Your task to perform on an android device: open device folders in google photos Image 0: 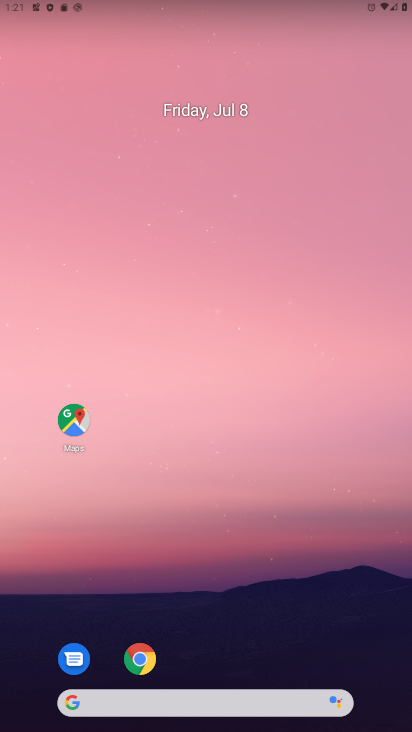
Step 0: drag from (252, 568) to (229, 95)
Your task to perform on an android device: open device folders in google photos Image 1: 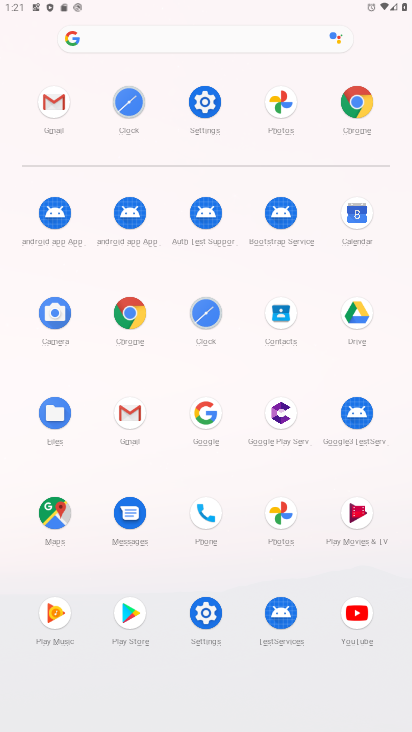
Step 1: click (284, 517)
Your task to perform on an android device: open device folders in google photos Image 2: 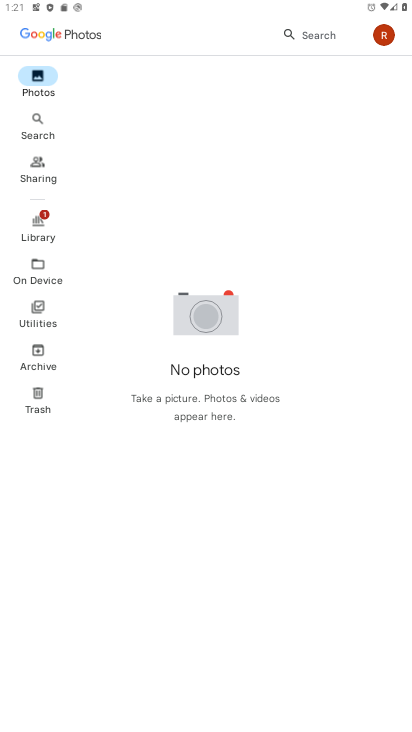
Step 2: click (33, 116)
Your task to perform on an android device: open device folders in google photos Image 3: 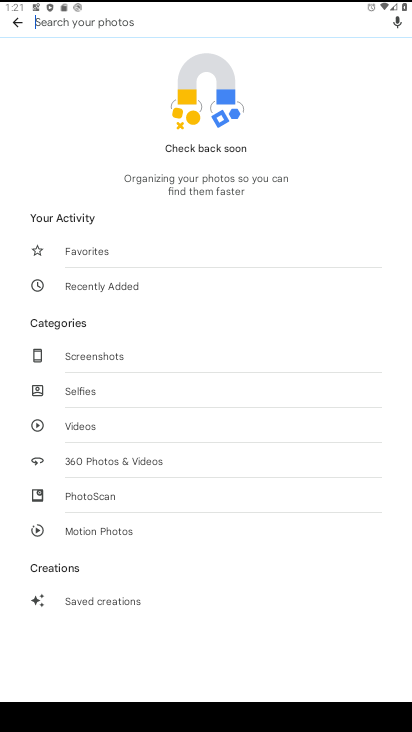
Step 3: type "device folder"
Your task to perform on an android device: open device folders in google photos Image 4: 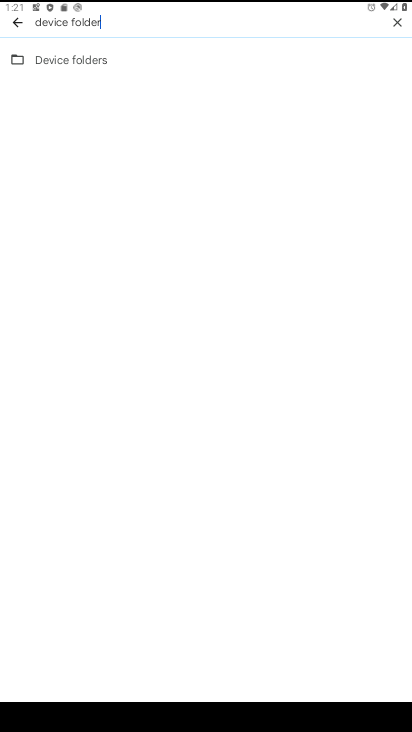
Step 4: click (55, 57)
Your task to perform on an android device: open device folders in google photos Image 5: 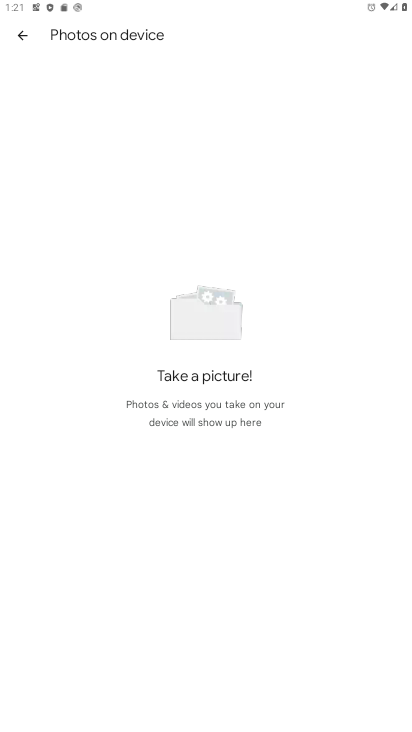
Step 5: task complete